Your task to perform on an android device: Open Google Maps and go to "Timeline" Image 0: 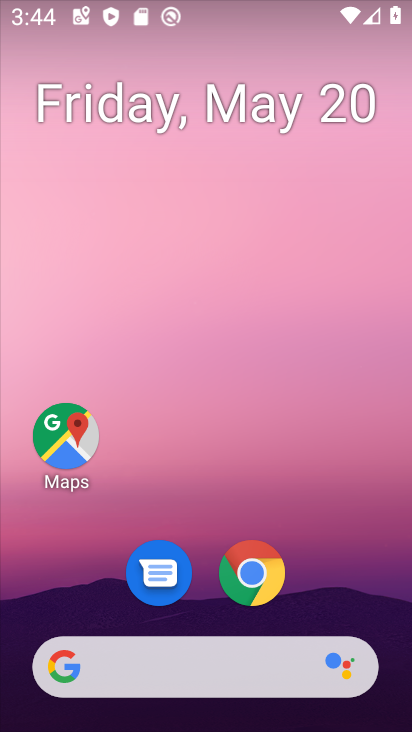
Step 0: click (66, 437)
Your task to perform on an android device: Open Google Maps and go to "Timeline" Image 1: 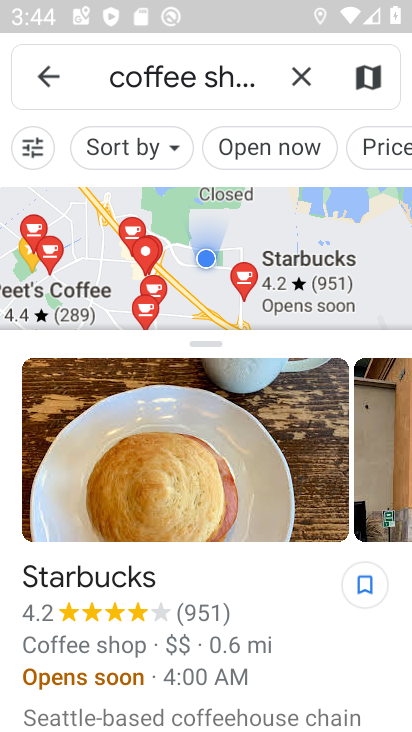
Step 1: click (298, 71)
Your task to perform on an android device: Open Google Maps and go to "Timeline" Image 2: 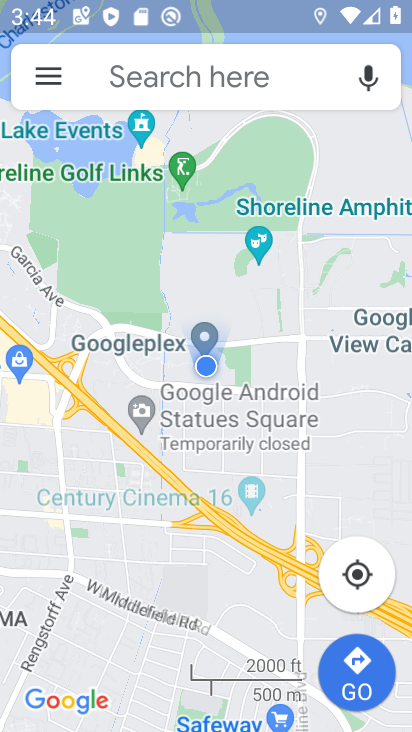
Step 2: click (44, 75)
Your task to perform on an android device: Open Google Maps and go to "Timeline" Image 3: 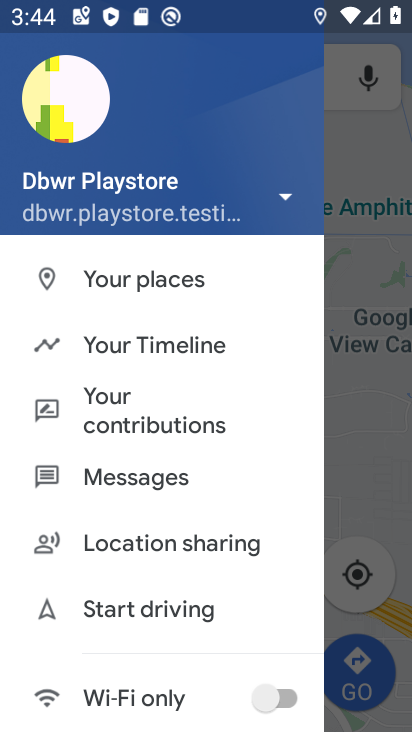
Step 3: click (133, 346)
Your task to perform on an android device: Open Google Maps and go to "Timeline" Image 4: 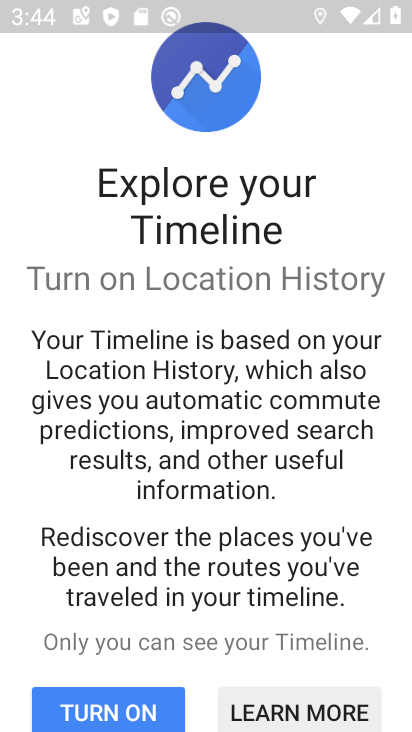
Step 4: drag from (256, 689) to (239, 236)
Your task to perform on an android device: Open Google Maps and go to "Timeline" Image 5: 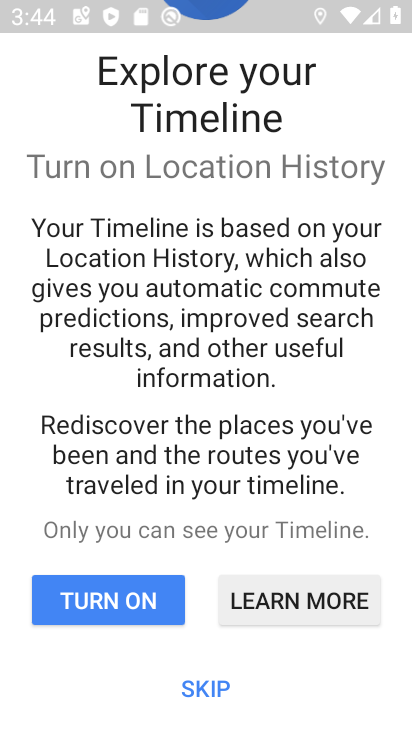
Step 5: click (198, 693)
Your task to perform on an android device: Open Google Maps and go to "Timeline" Image 6: 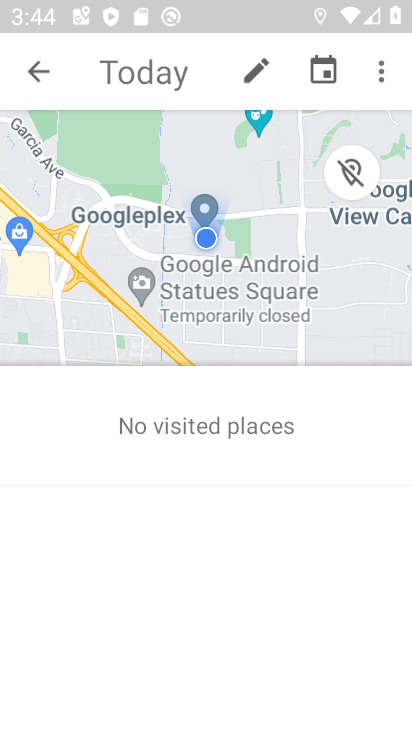
Step 6: task complete